Your task to perform on an android device: open a new tab in the chrome app Image 0: 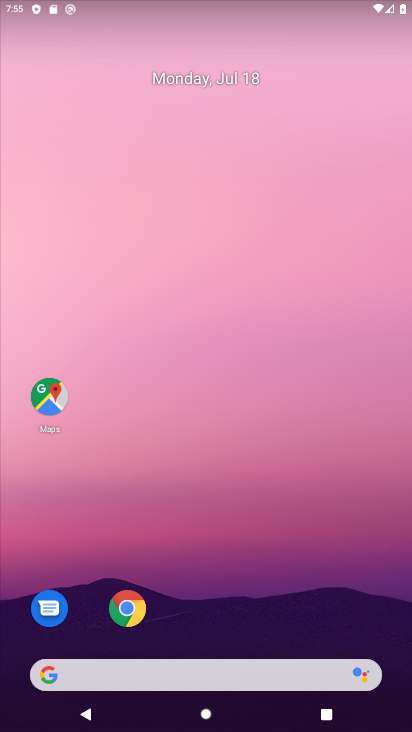
Step 0: click (134, 613)
Your task to perform on an android device: open a new tab in the chrome app Image 1: 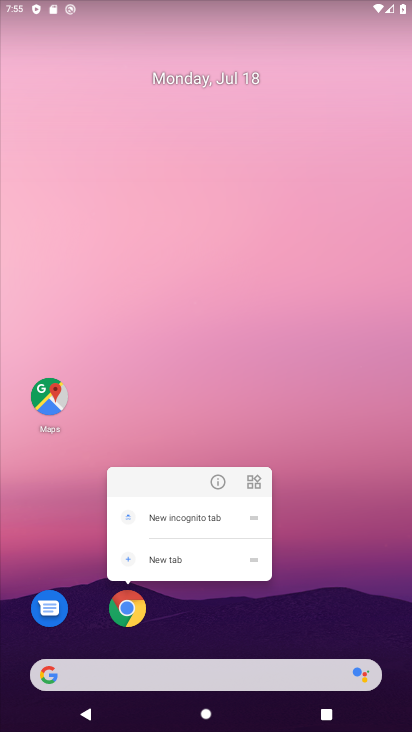
Step 1: click (130, 609)
Your task to perform on an android device: open a new tab in the chrome app Image 2: 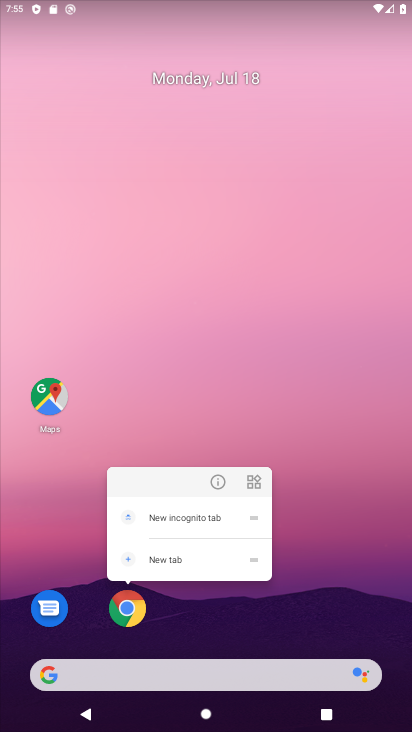
Step 2: click (133, 585)
Your task to perform on an android device: open a new tab in the chrome app Image 3: 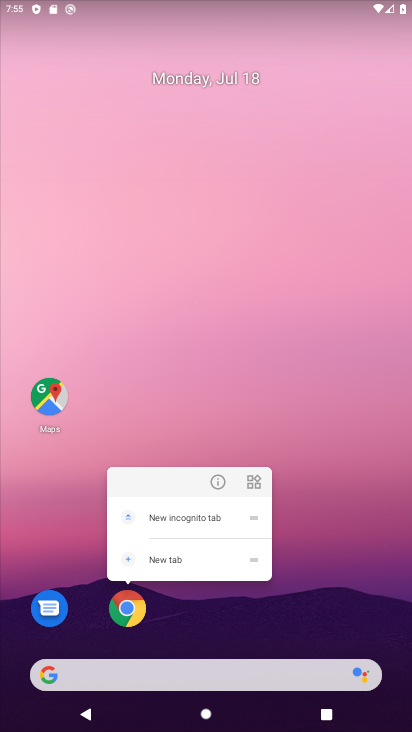
Step 3: click (151, 556)
Your task to perform on an android device: open a new tab in the chrome app Image 4: 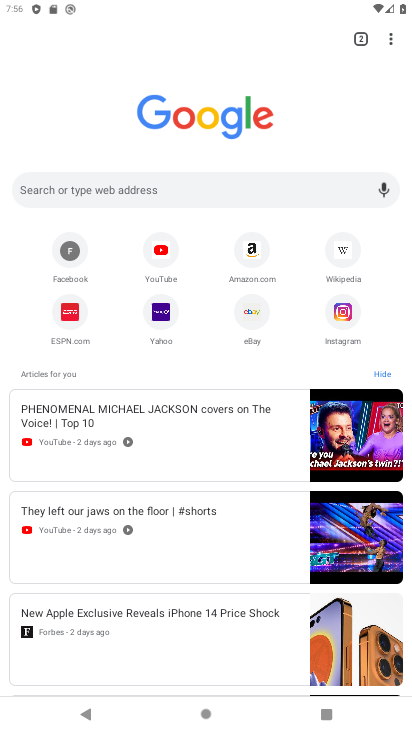
Step 4: task complete